Your task to perform on an android device: turn off notifications settings in the gmail app Image 0: 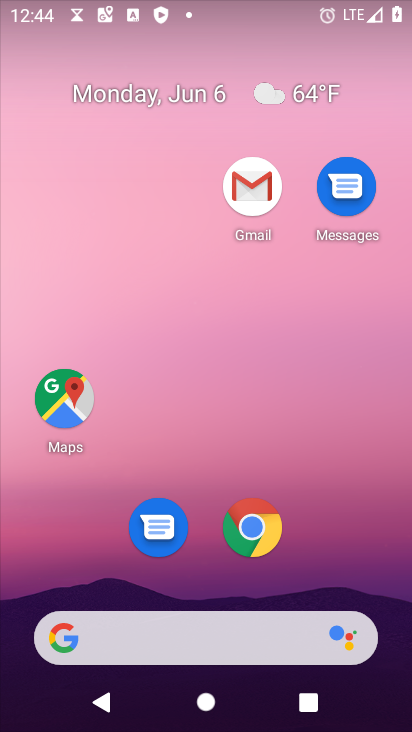
Step 0: click (249, 192)
Your task to perform on an android device: turn off notifications settings in the gmail app Image 1: 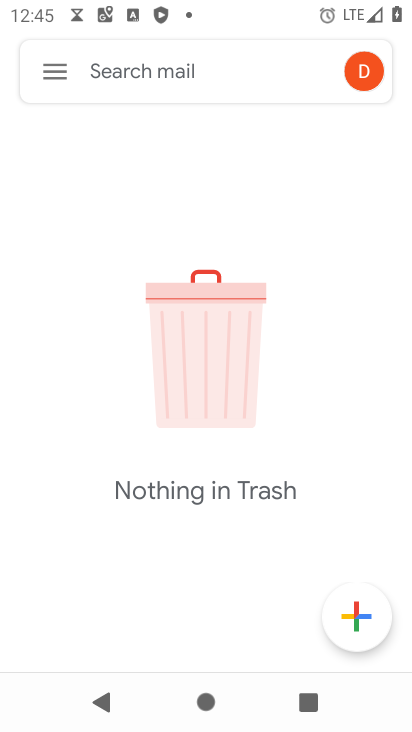
Step 1: click (60, 67)
Your task to perform on an android device: turn off notifications settings in the gmail app Image 2: 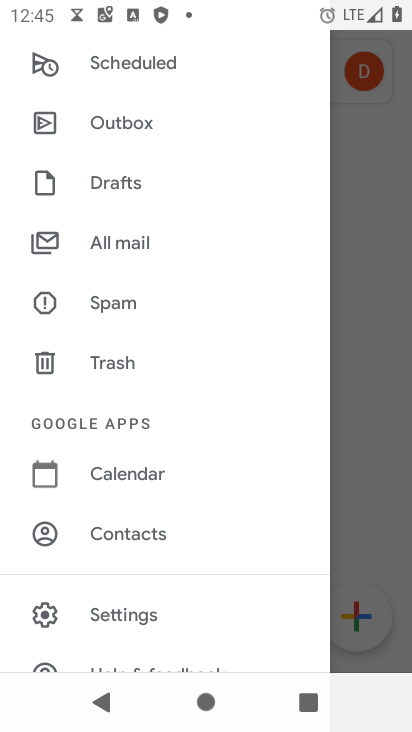
Step 2: click (144, 608)
Your task to perform on an android device: turn off notifications settings in the gmail app Image 3: 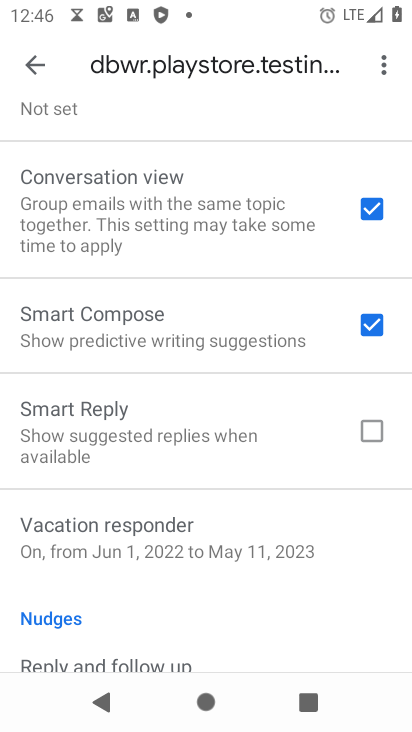
Step 3: drag from (221, 175) to (202, 582)
Your task to perform on an android device: turn off notifications settings in the gmail app Image 4: 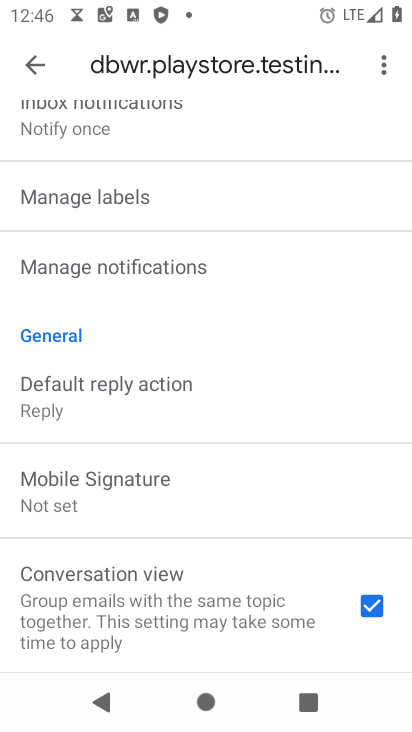
Step 4: click (199, 270)
Your task to perform on an android device: turn off notifications settings in the gmail app Image 5: 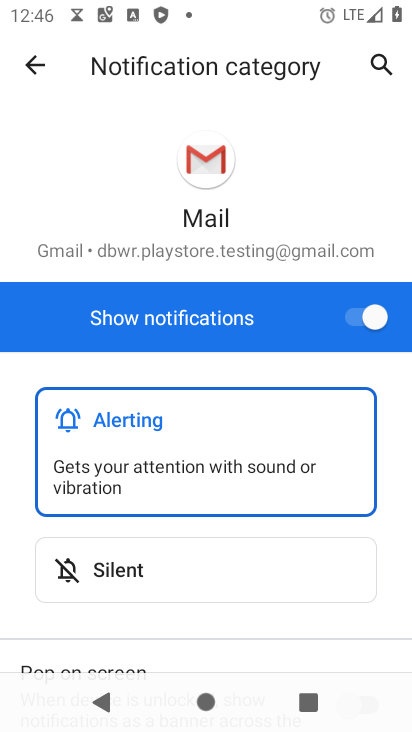
Step 5: click (357, 311)
Your task to perform on an android device: turn off notifications settings in the gmail app Image 6: 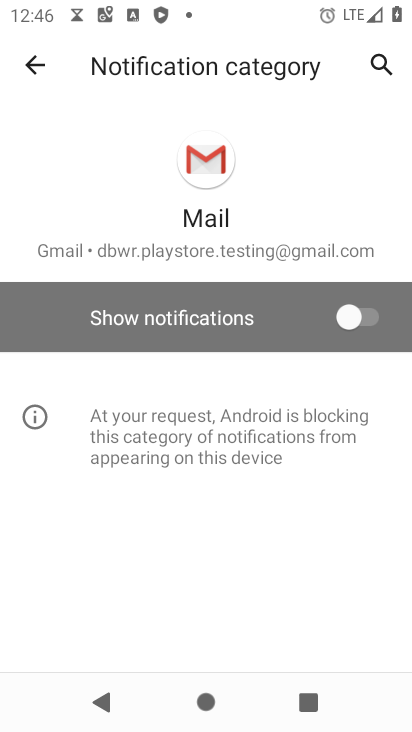
Step 6: task complete